Your task to perform on an android device: open chrome and create a bookmark for the current page Image 0: 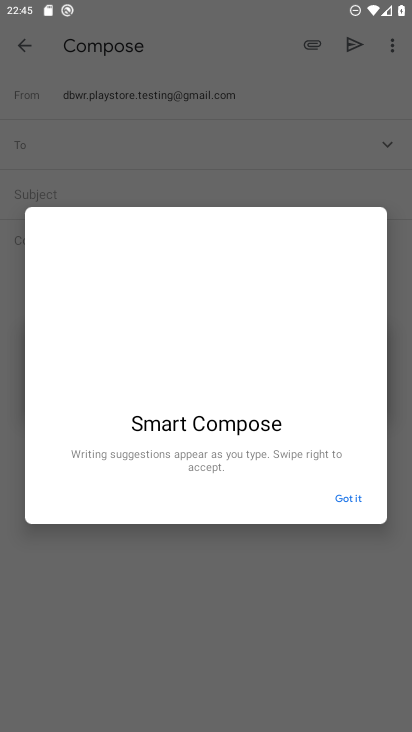
Step 0: press home button
Your task to perform on an android device: open chrome and create a bookmark for the current page Image 1: 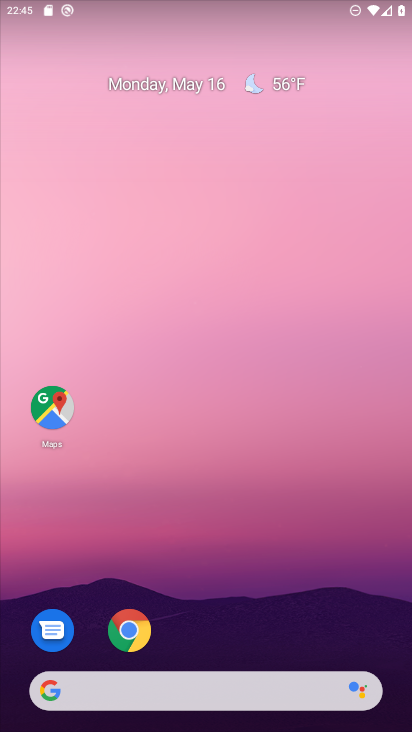
Step 1: click (144, 633)
Your task to perform on an android device: open chrome and create a bookmark for the current page Image 2: 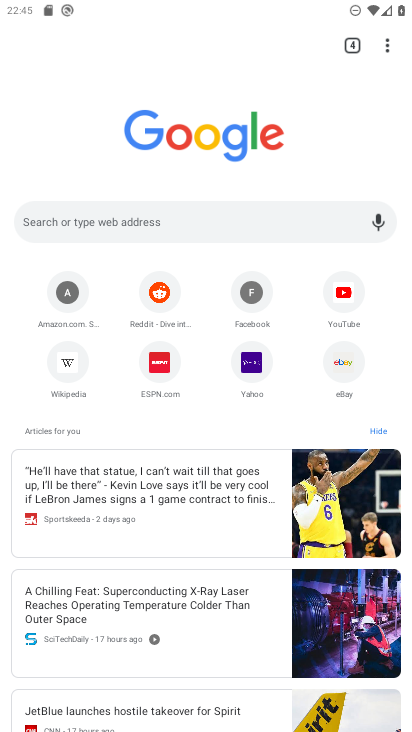
Step 2: click (391, 51)
Your task to perform on an android device: open chrome and create a bookmark for the current page Image 3: 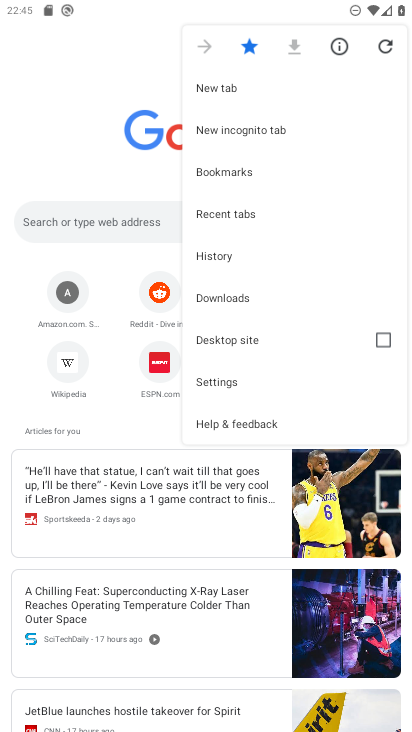
Step 3: task complete